Your task to perform on an android device: create a new album in the google photos Image 0: 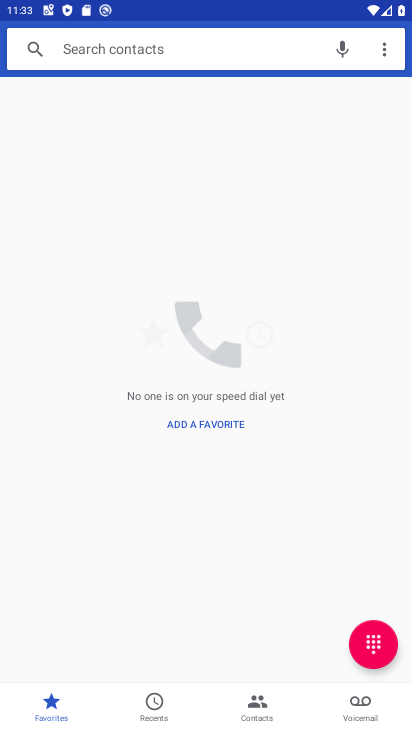
Step 0: press home button
Your task to perform on an android device: create a new album in the google photos Image 1: 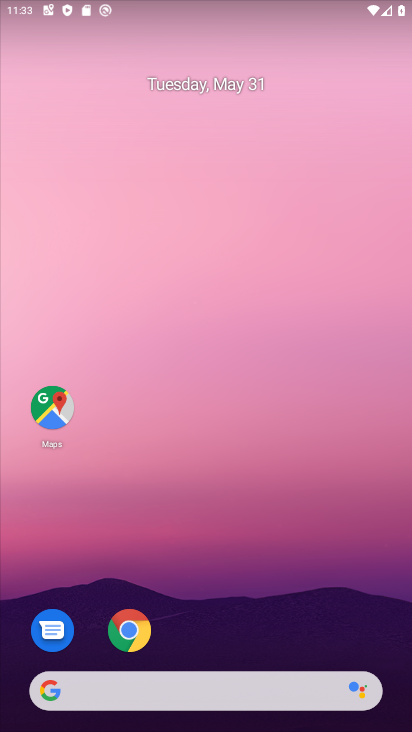
Step 1: drag from (296, 631) to (354, 188)
Your task to perform on an android device: create a new album in the google photos Image 2: 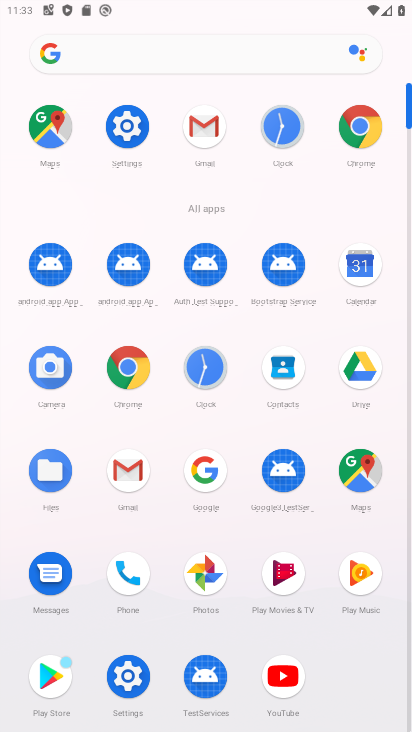
Step 2: click (193, 571)
Your task to perform on an android device: create a new album in the google photos Image 3: 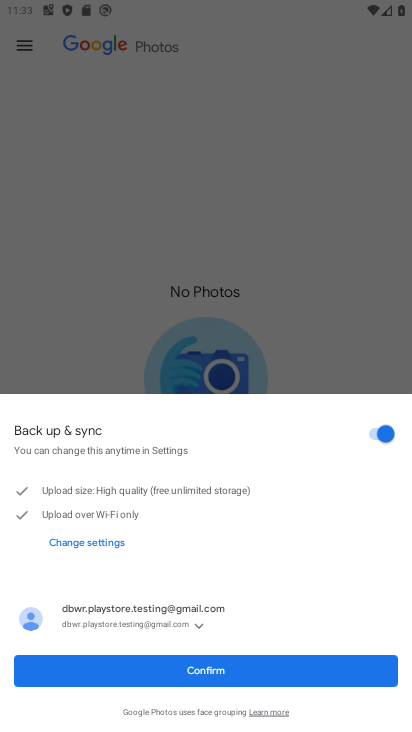
Step 3: click (95, 668)
Your task to perform on an android device: create a new album in the google photos Image 4: 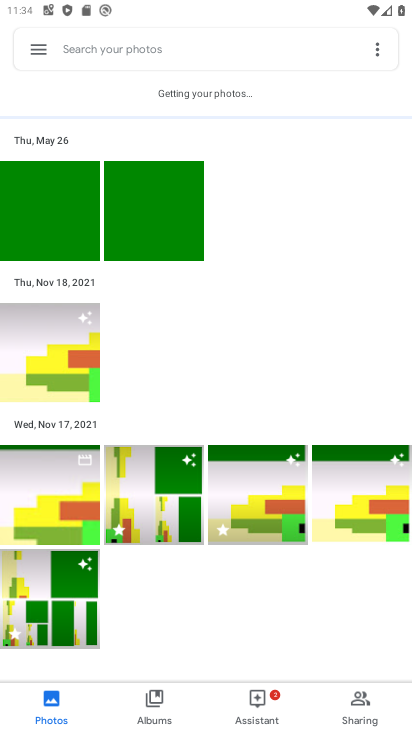
Step 4: click (32, 244)
Your task to perform on an android device: create a new album in the google photos Image 5: 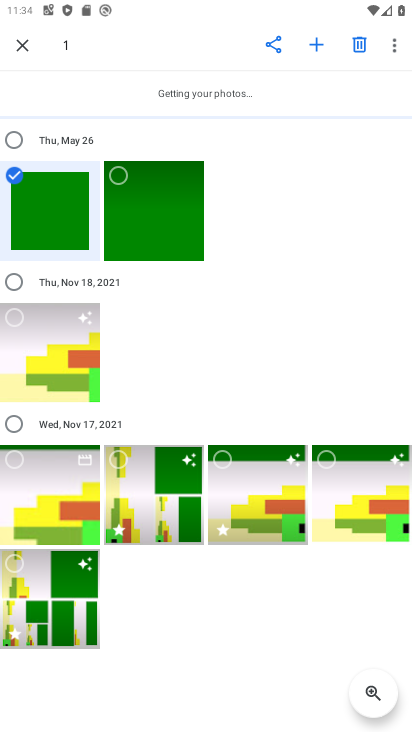
Step 5: click (134, 201)
Your task to perform on an android device: create a new album in the google photos Image 6: 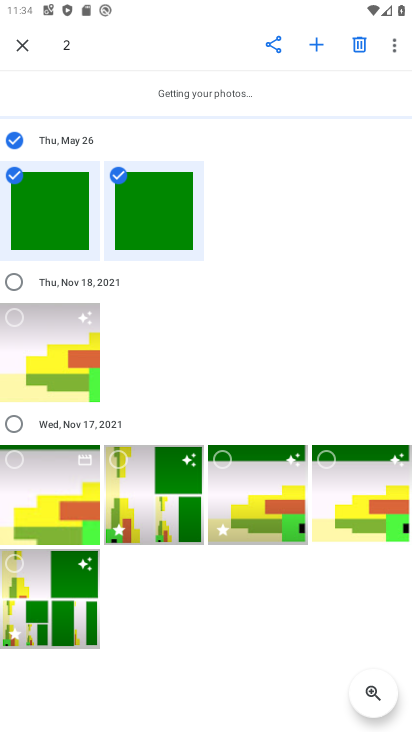
Step 6: click (322, 50)
Your task to perform on an android device: create a new album in the google photos Image 7: 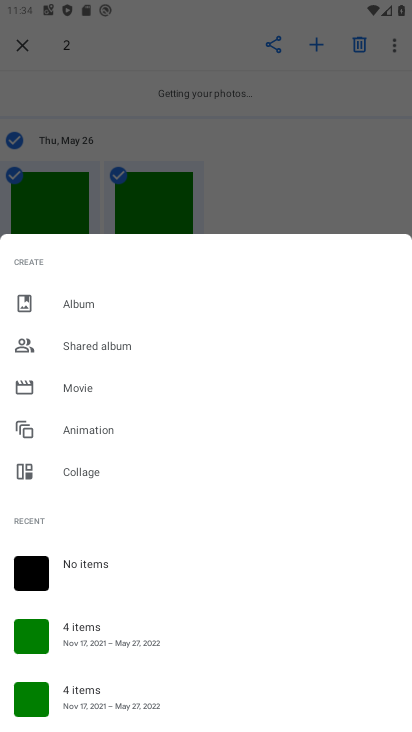
Step 7: click (120, 313)
Your task to perform on an android device: create a new album in the google photos Image 8: 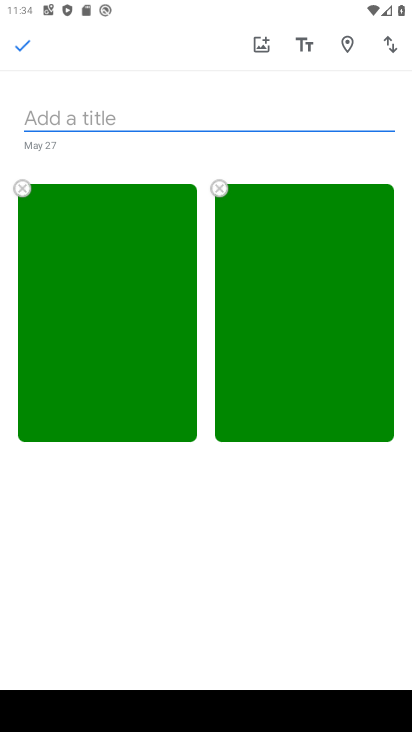
Step 8: type "fhgchg"
Your task to perform on an android device: create a new album in the google photos Image 9: 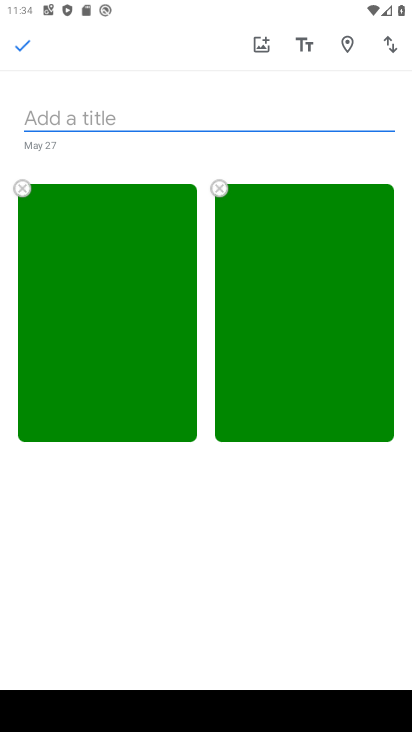
Step 9: click (80, 101)
Your task to perform on an android device: create a new album in the google photos Image 10: 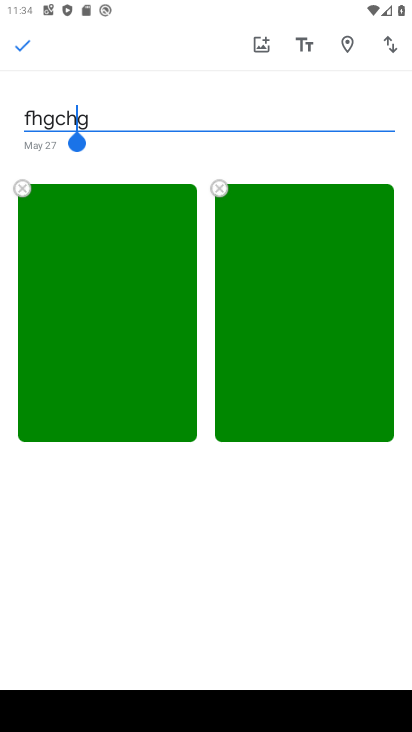
Step 10: click (20, 40)
Your task to perform on an android device: create a new album in the google photos Image 11: 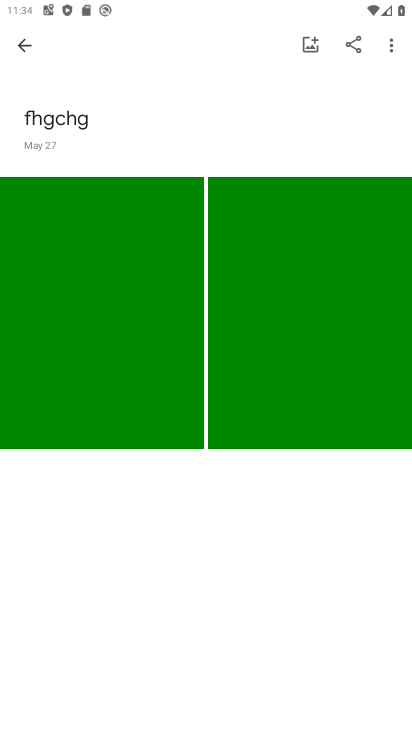
Step 11: task complete